Your task to perform on an android device: Open eBay Image 0: 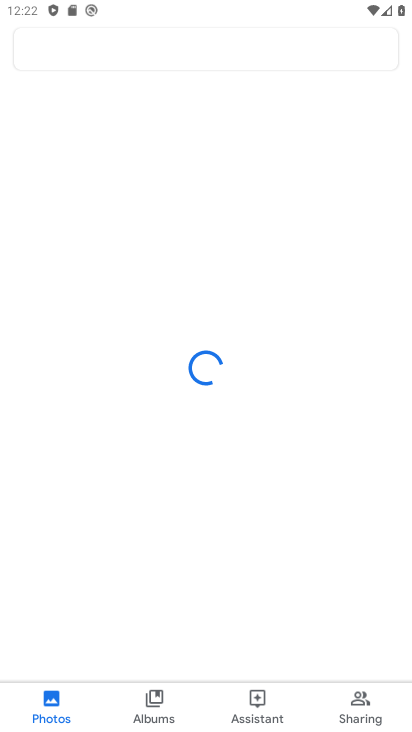
Step 0: press home button
Your task to perform on an android device: Open eBay Image 1: 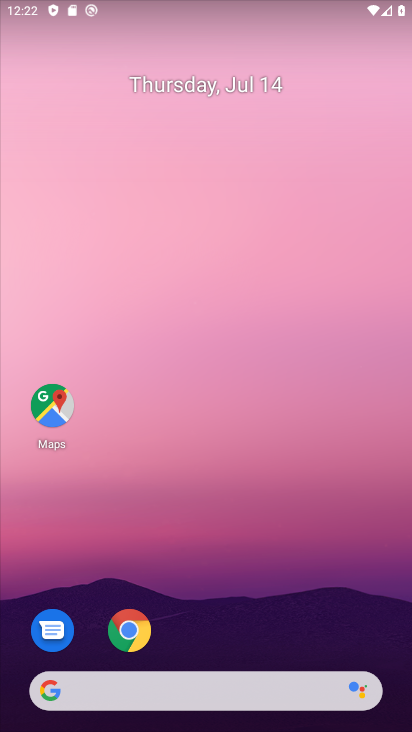
Step 1: drag from (209, 675) to (209, 198)
Your task to perform on an android device: Open eBay Image 2: 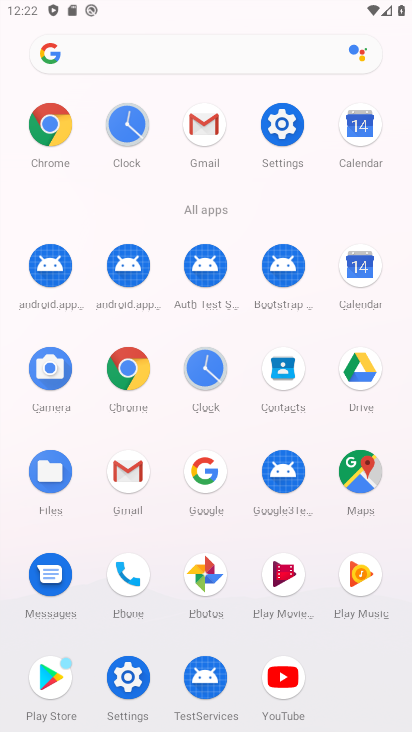
Step 2: click (45, 134)
Your task to perform on an android device: Open eBay Image 3: 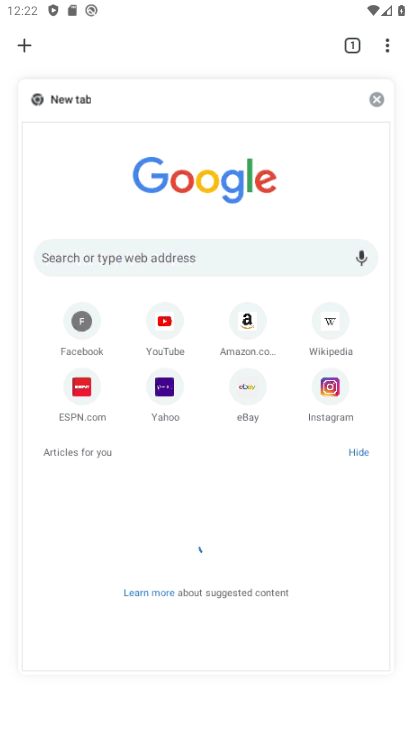
Step 3: click (245, 385)
Your task to perform on an android device: Open eBay Image 4: 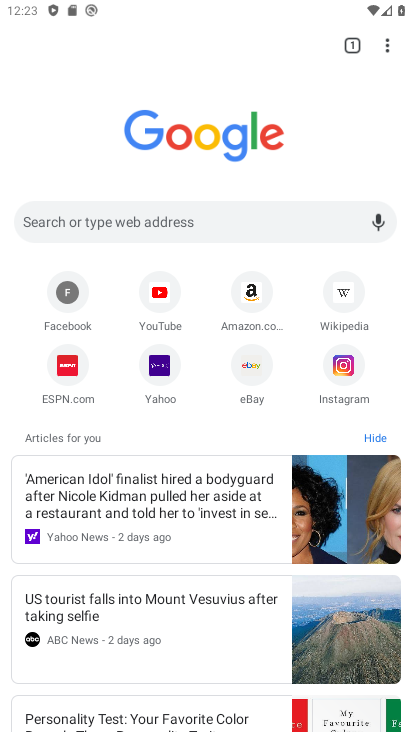
Step 4: click (248, 371)
Your task to perform on an android device: Open eBay Image 5: 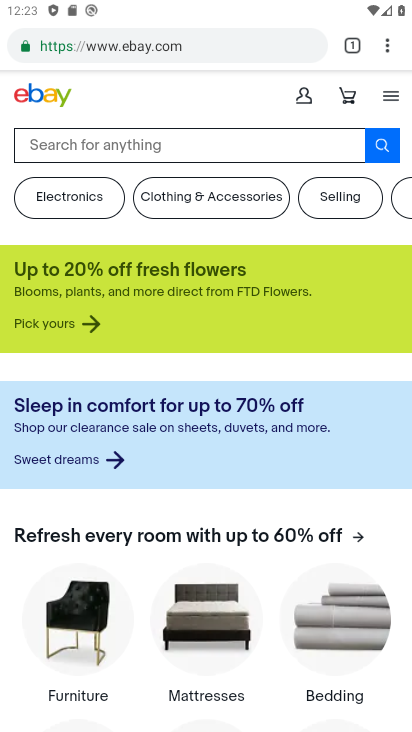
Step 5: task complete